Your task to perform on an android device: Search for seafood restaurants on Google Maps Image 0: 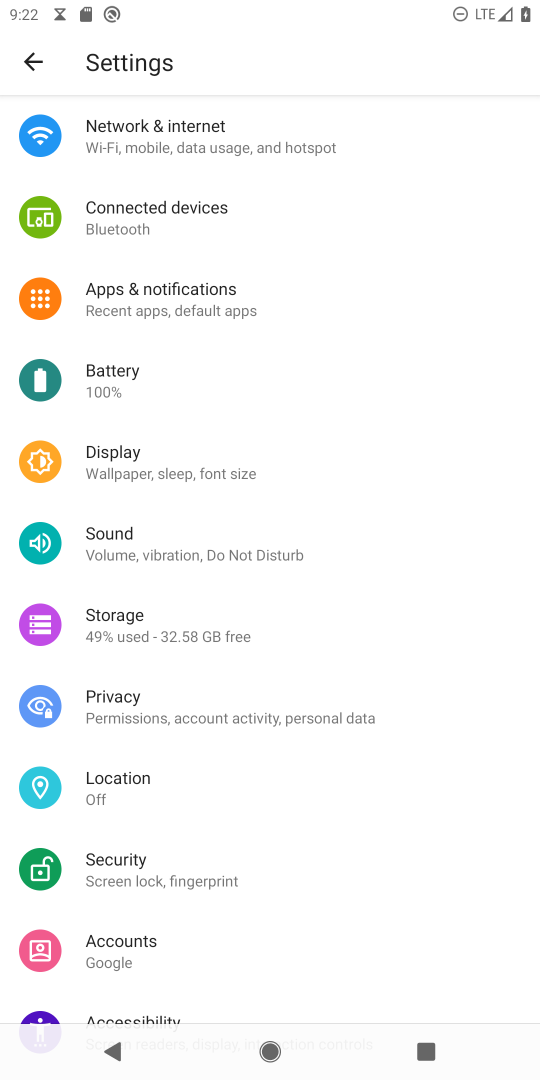
Step 0: press home button
Your task to perform on an android device: Search for seafood restaurants on Google Maps Image 1: 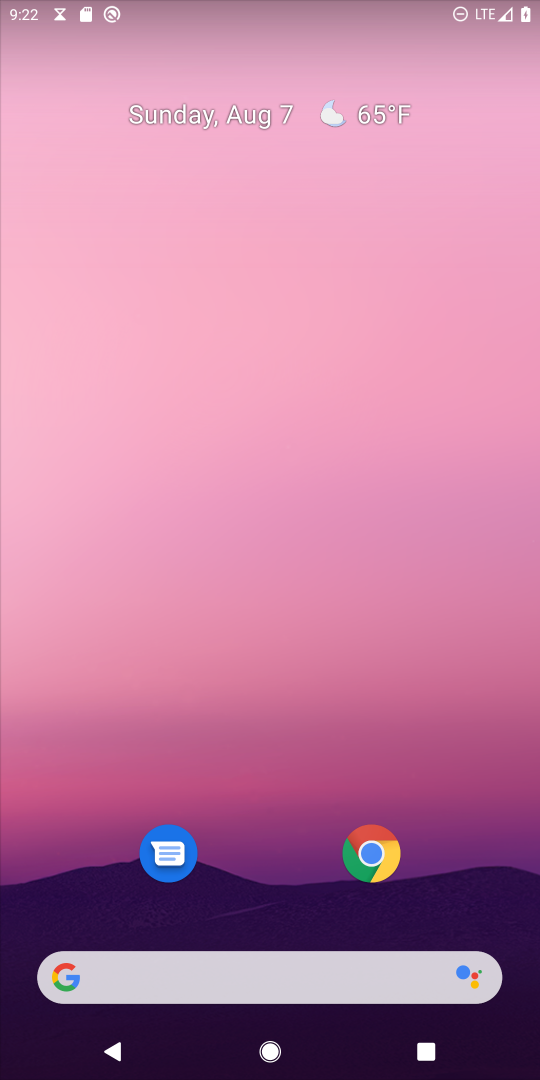
Step 1: drag from (292, 911) to (285, 341)
Your task to perform on an android device: Search for seafood restaurants on Google Maps Image 2: 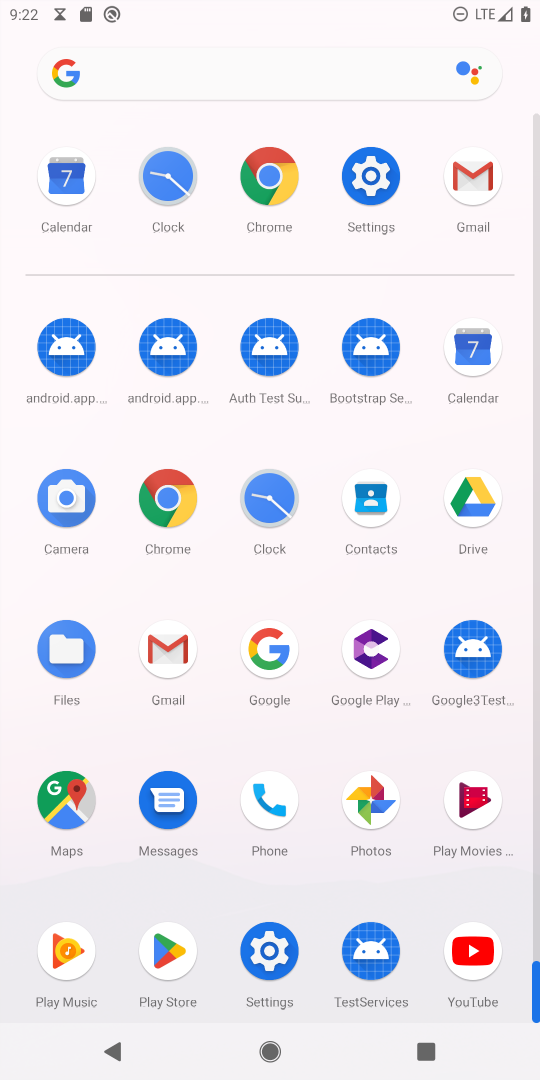
Step 2: click (70, 781)
Your task to perform on an android device: Search for seafood restaurants on Google Maps Image 3: 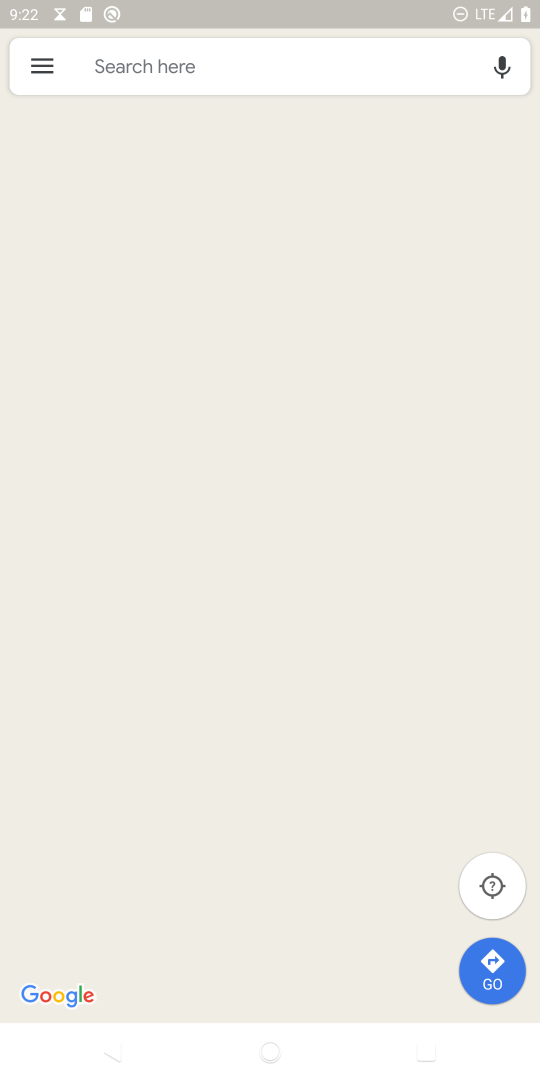
Step 3: click (321, 62)
Your task to perform on an android device: Search for seafood restaurants on Google Maps Image 4: 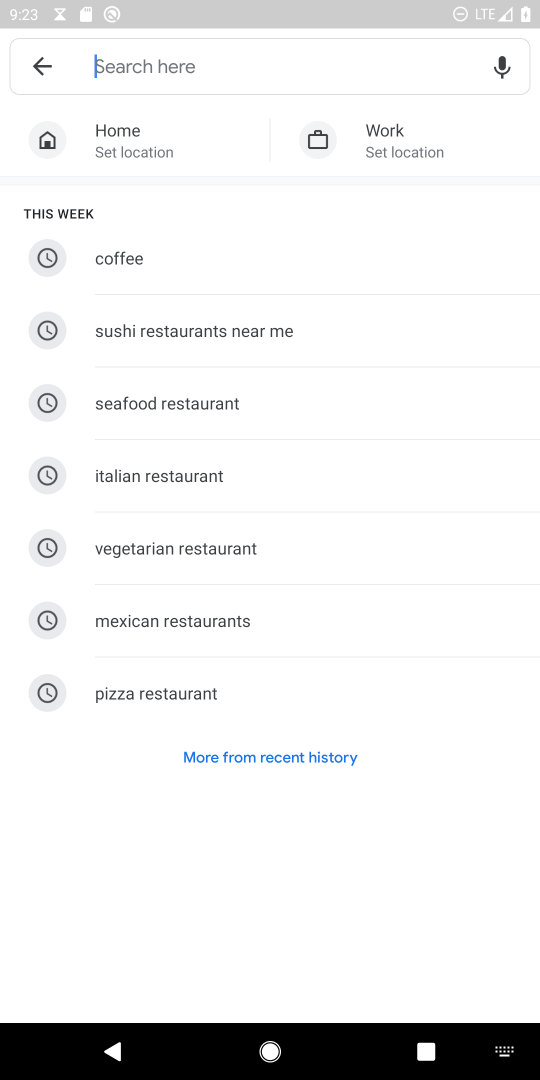
Step 4: click (169, 407)
Your task to perform on an android device: Search for seafood restaurants on Google Maps Image 5: 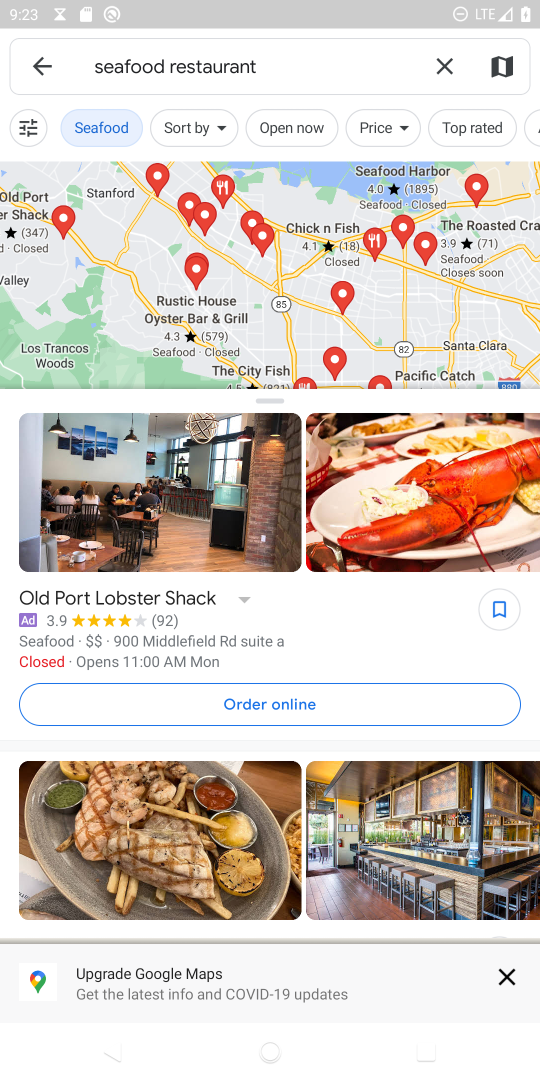
Step 5: task complete